Your task to perform on an android device: Go to display settings Image 0: 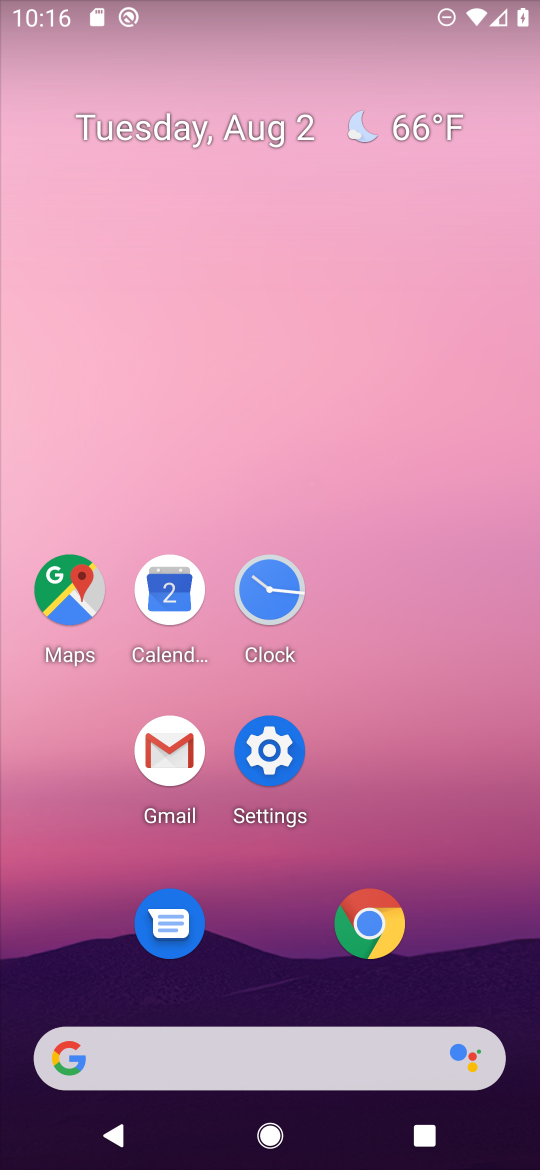
Step 0: click (261, 773)
Your task to perform on an android device: Go to display settings Image 1: 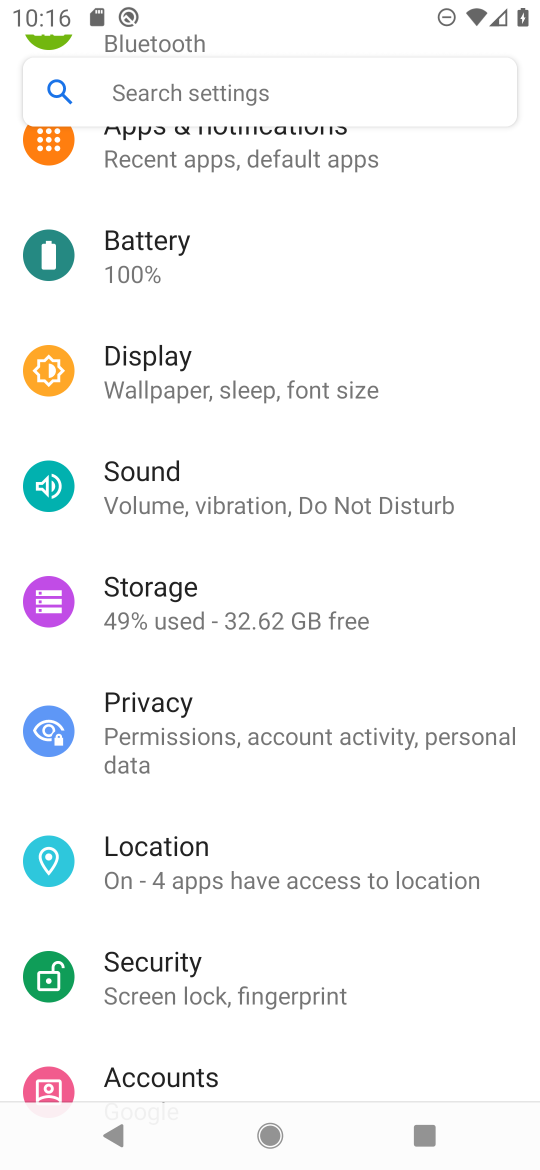
Step 1: click (172, 368)
Your task to perform on an android device: Go to display settings Image 2: 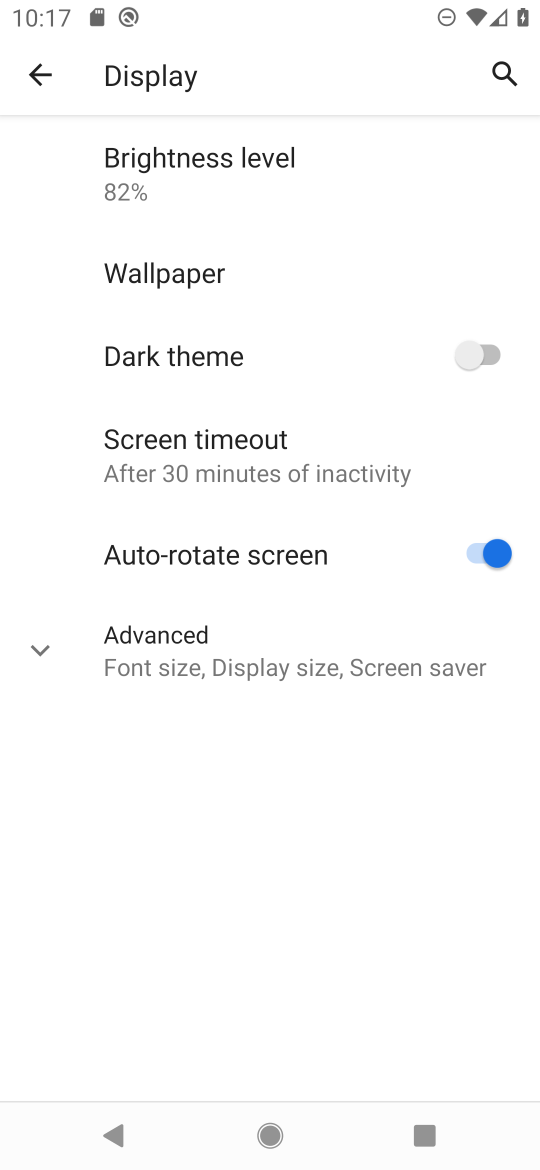
Step 2: click (23, 649)
Your task to perform on an android device: Go to display settings Image 3: 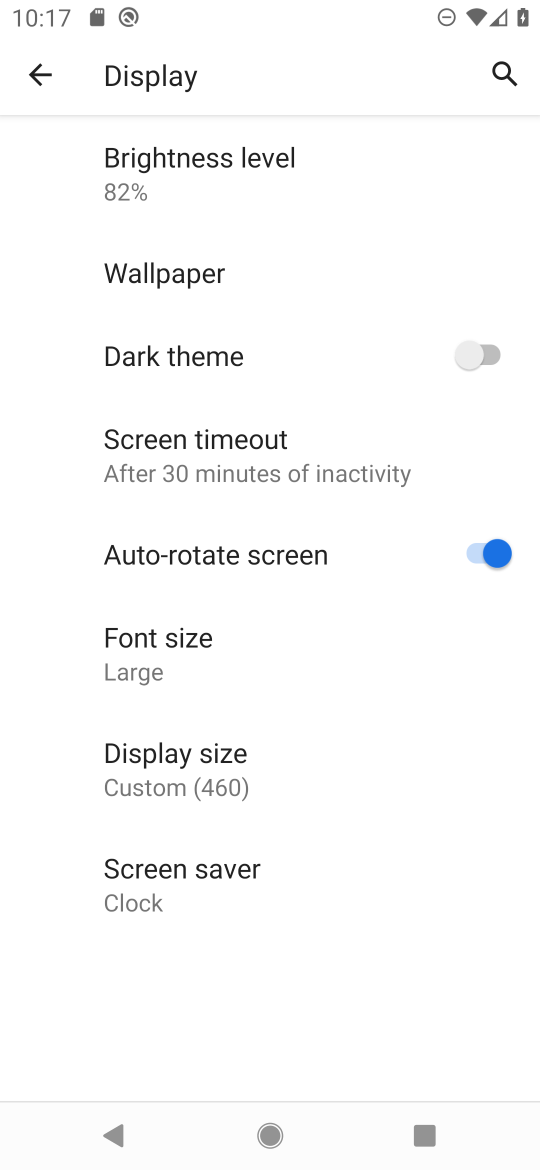
Step 3: task complete